Your task to perform on an android device: Turn on the flashlight Image 0: 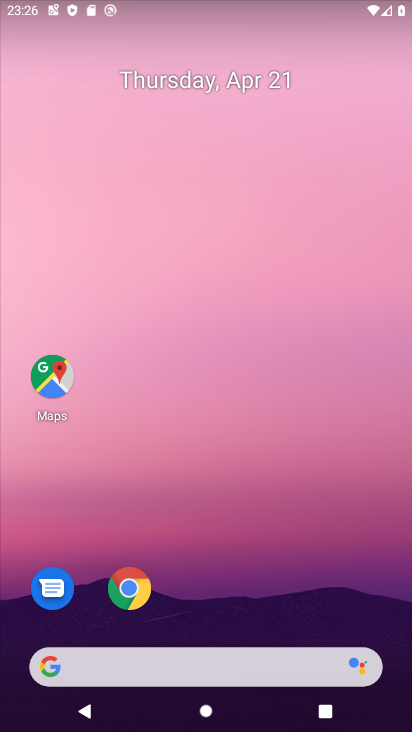
Step 0: task impossible